Your task to perform on an android device: Open Google Chrome Image 0: 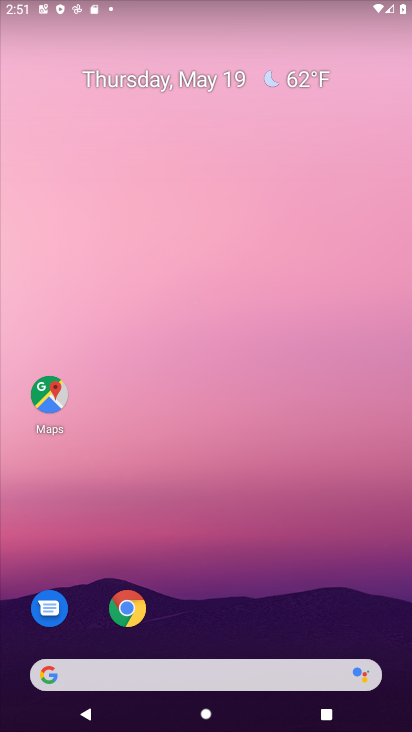
Step 0: click (117, 605)
Your task to perform on an android device: Open Google Chrome Image 1: 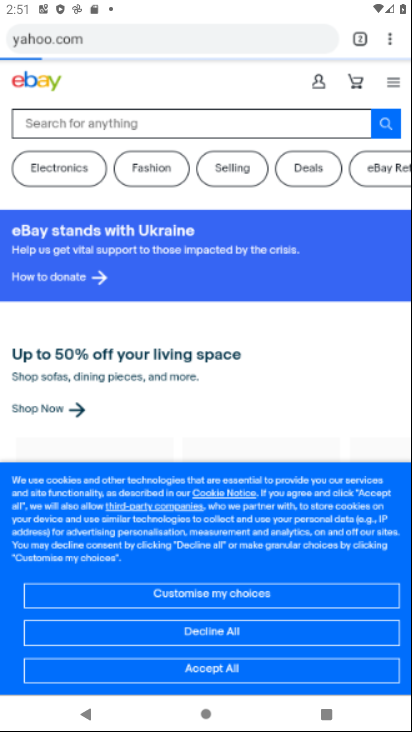
Step 1: task complete